Your task to perform on an android device: check storage Image 0: 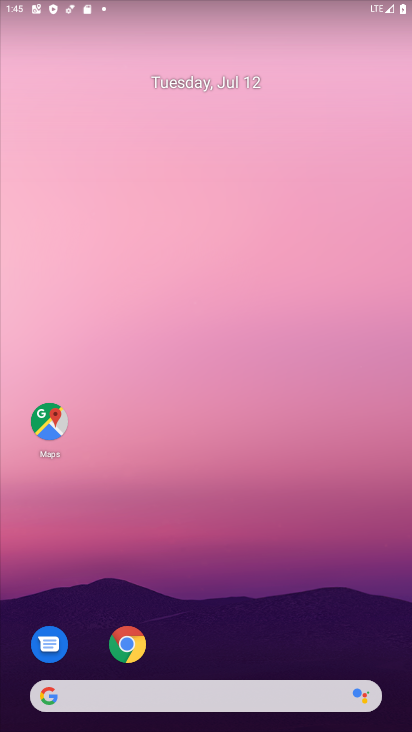
Step 0: drag from (194, 661) to (109, 161)
Your task to perform on an android device: check storage Image 1: 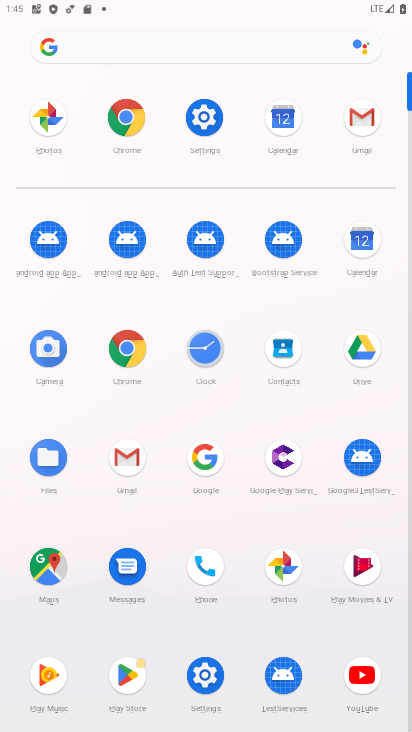
Step 1: click (209, 669)
Your task to perform on an android device: check storage Image 2: 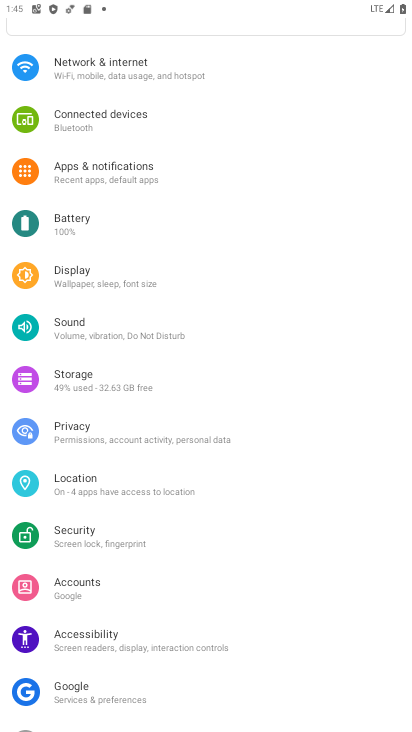
Step 2: click (55, 386)
Your task to perform on an android device: check storage Image 3: 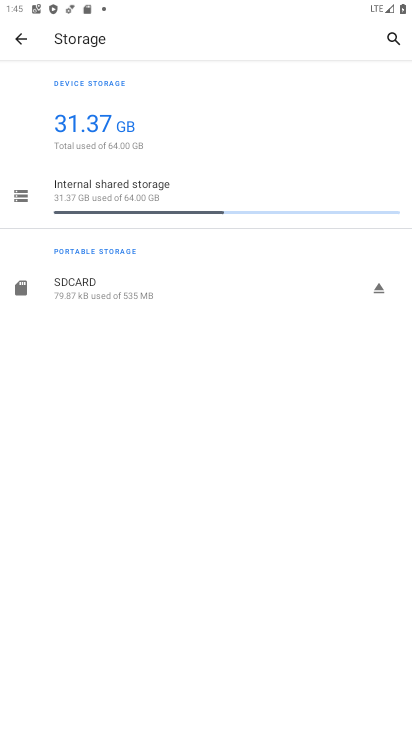
Step 3: task complete